Your task to perform on an android device: Go to settings Image 0: 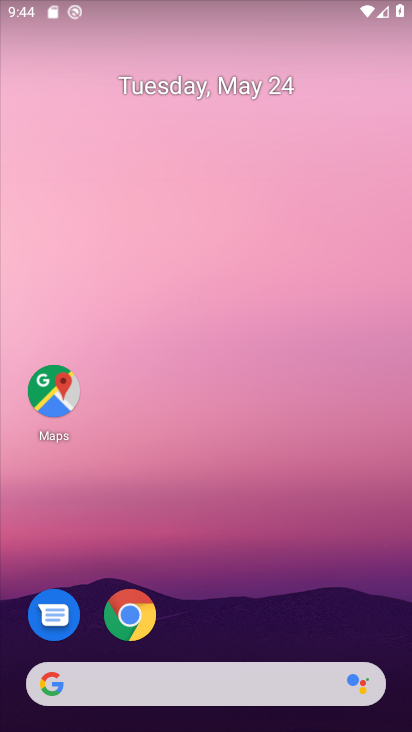
Step 0: drag from (388, 639) to (381, 306)
Your task to perform on an android device: Go to settings Image 1: 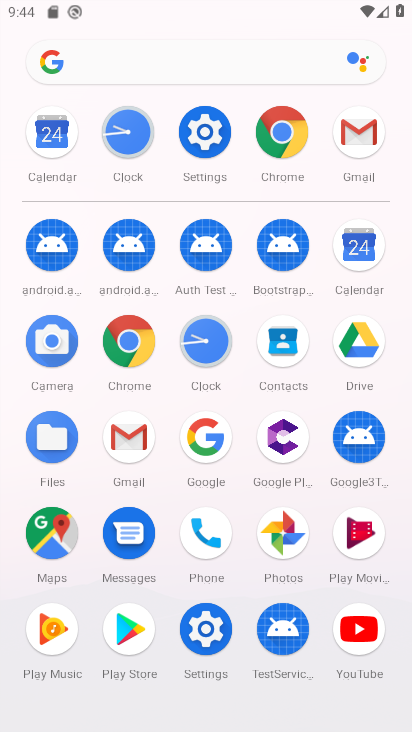
Step 1: click (202, 633)
Your task to perform on an android device: Go to settings Image 2: 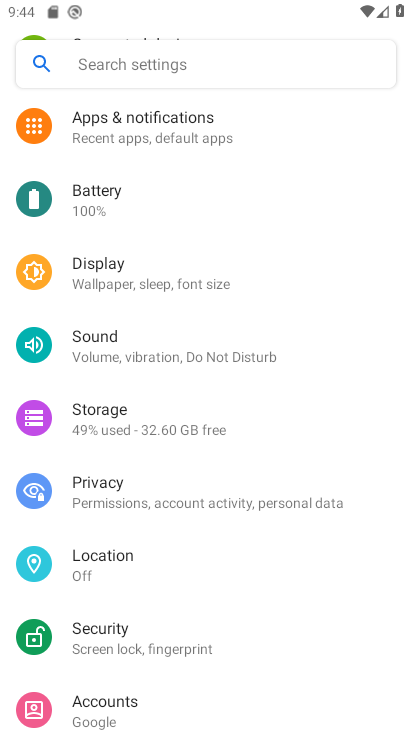
Step 2: task complete